Your task to perform on an android device: turn notification dots on Image 0: 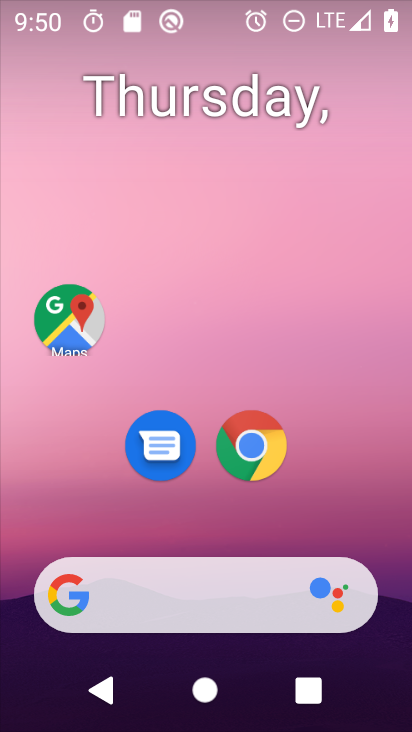
Step 0: click (251, 253)
Your task to perform on an android device: turn notification dots on Image 1: 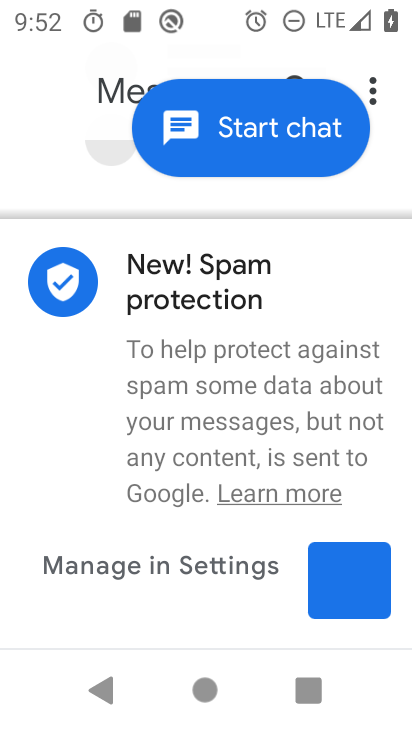
Step 1: drag from (248, 492) to (266, 260)
Your task to perform on an android device: turn notification dots on Image 2: 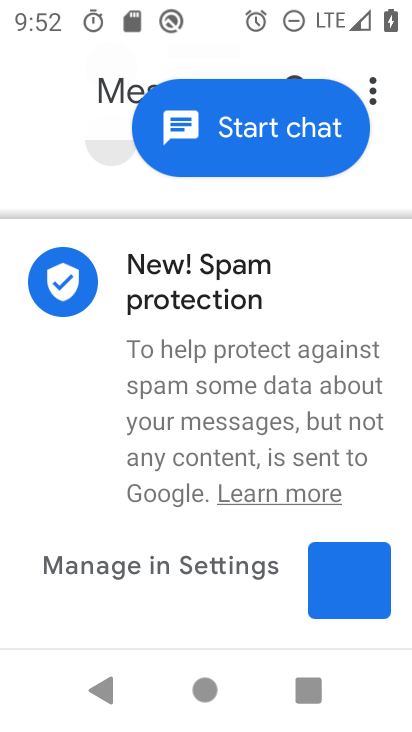
Step 2: press home button
Your task to perform on an android device: turn notification dots on Image 3: 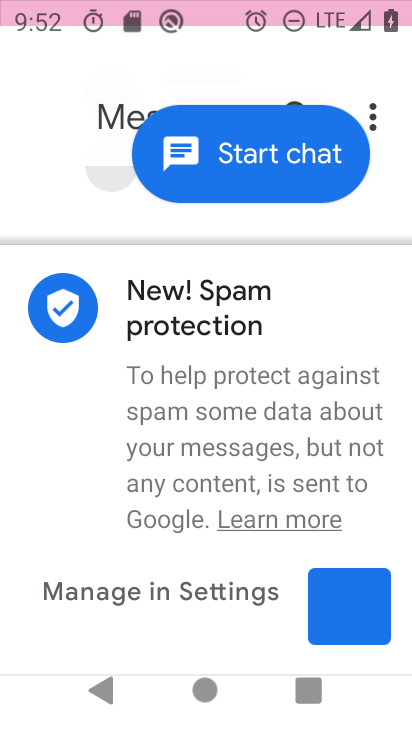
Step 3: press home button
Your task to perform on an android device: turn notification dots on Image 4: 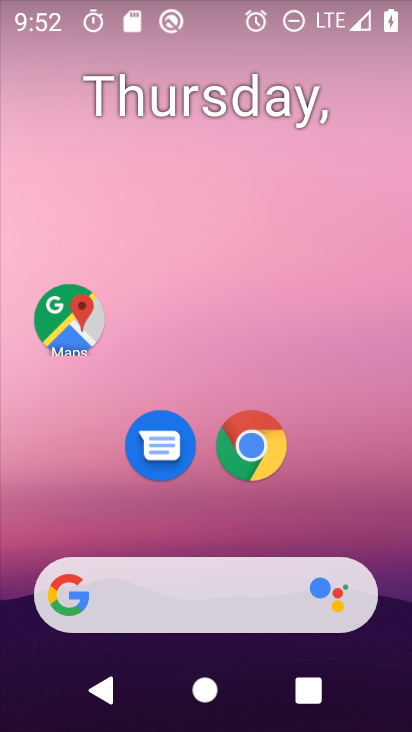
Step 4: drag from (210, 524) to (191, 92)
Your task to perform on an android device: turn notification dots on Image 5: 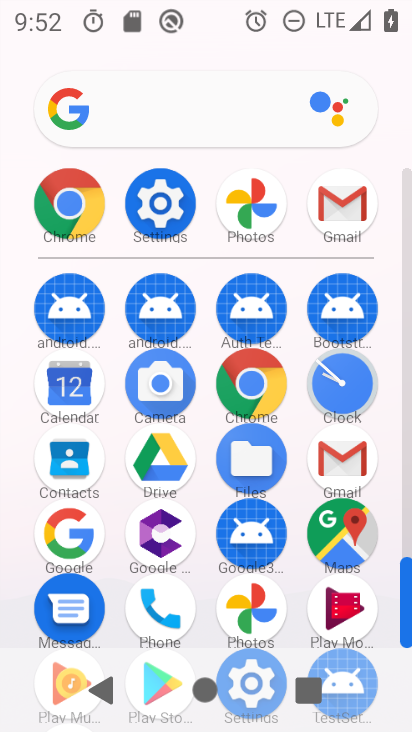
Step 5: click (170, 206)
Your task to perform on an android device: turn notification dots on Image 6: 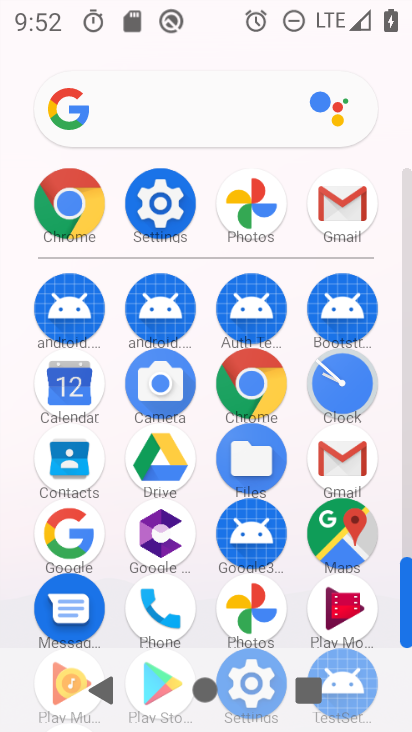
Step 6: click (170, 206)
Your task to perform on an android device: turn notification dots on Image 7: 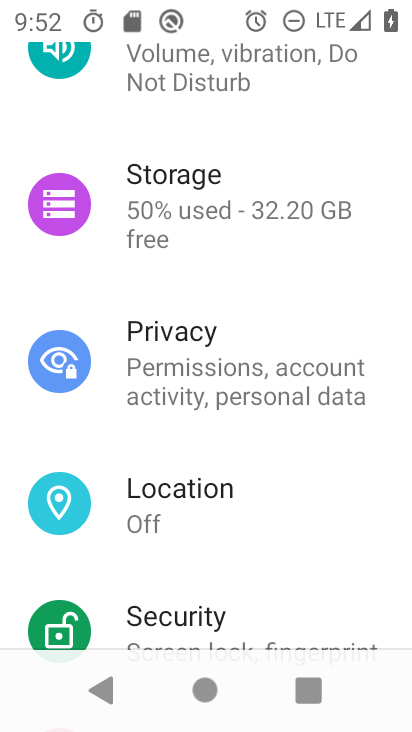
Step 7: drag from (173, 218) to (268, 686)
Your task to perform on an android device: turn notification dots on Image 8: 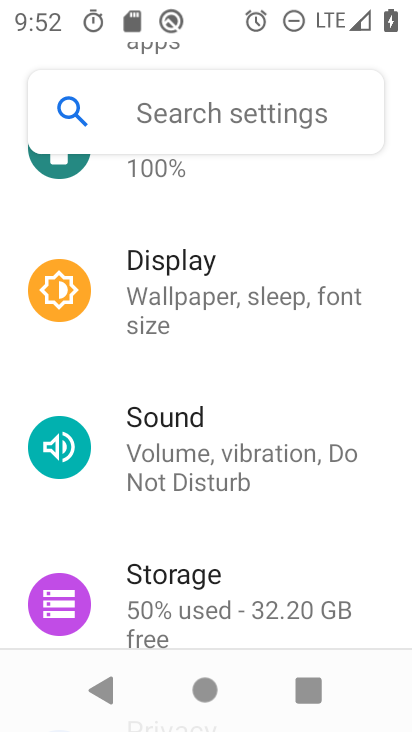
Step 8: drag from (95, 158) to (215, 552)
Your task to perform on an android device: turn notification dots on Image 9: 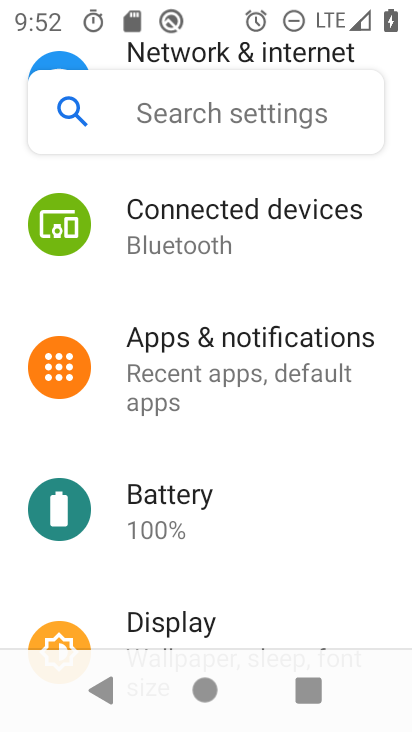
Step 9: click (188, 370)
Your task to perform on an android device: turn notification dots on Image 10: 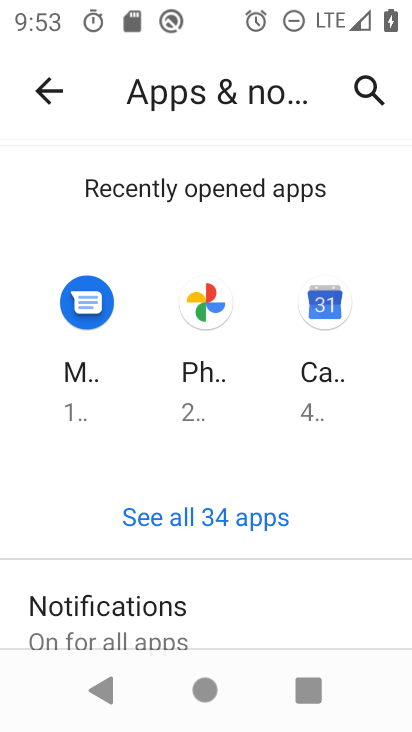
Step 10: click (192, 601)
Your task to perform on an android device: turn notification dots on Image 11: 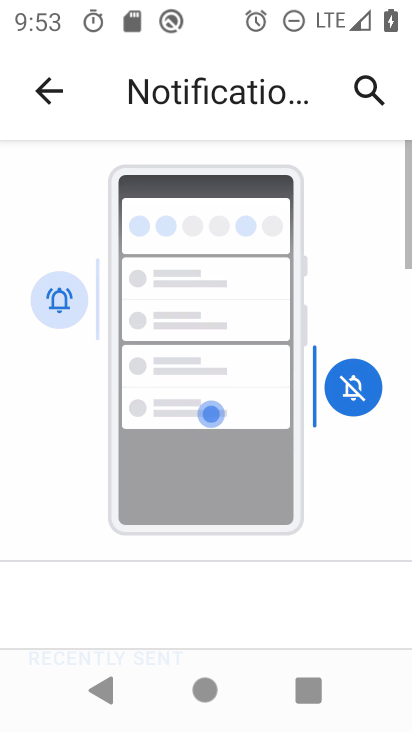
Step 11: drag from (176, 601) to (226, 132)
Your task to perform on an android device: turn notification dots on Image 12: 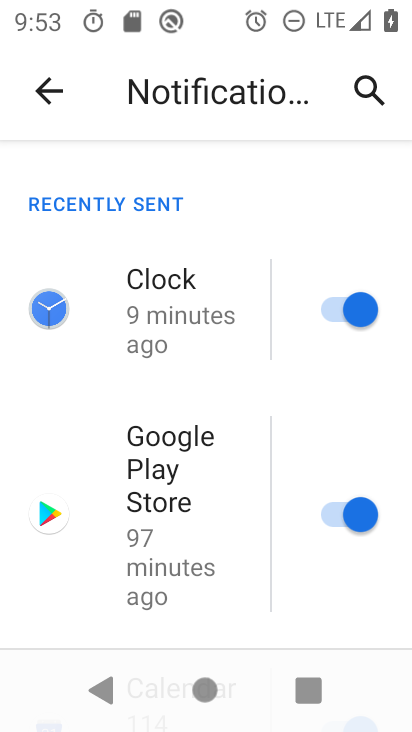
Step 12: drag from (249, 551) to (292, 156)
Your task to perform on an android device: turn notification dots on Image 13: 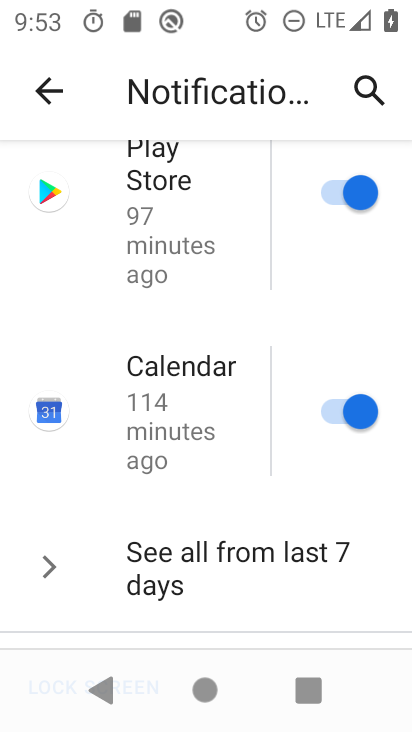
Step 13: drag from (247, 591) to (248, 54)
Your task to perform on an android device: turn notification dots on Image 14: 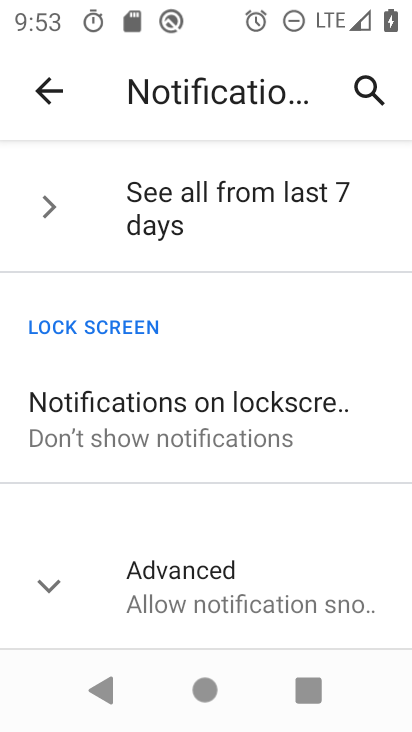
Step 14: click (247, 550)
Your task to perform on an android device: turn notification dots on Image 15: 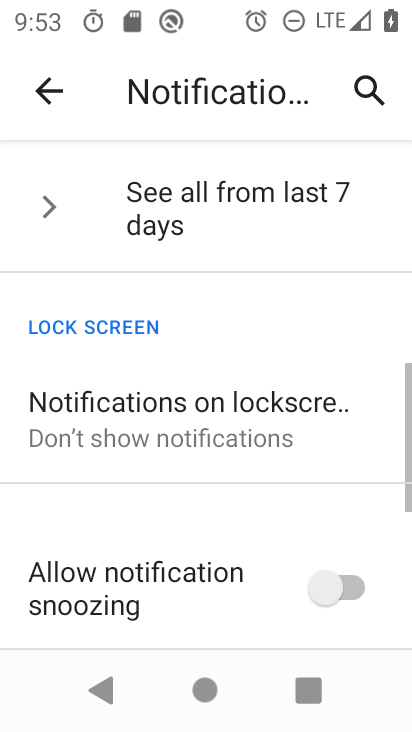
Step 15: task complete